Your task to perform on an android device: open chrome and create a bookmark for the current page Image 0: 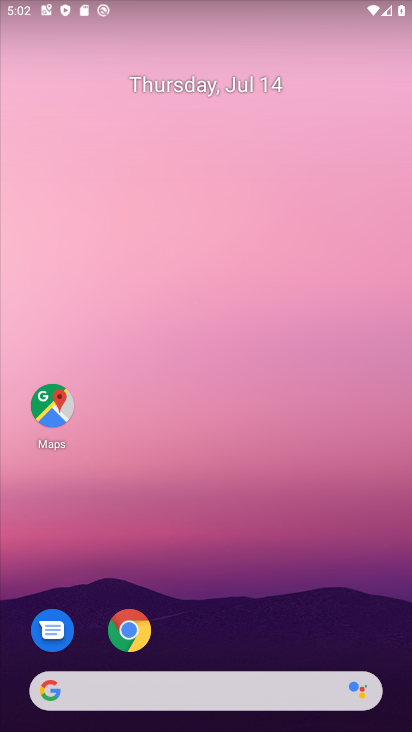
Step 0: drag from (336, 678) to (411, 71)
Your task to perform on an android device: open chrome and create a bookmark for the current page Image 1: 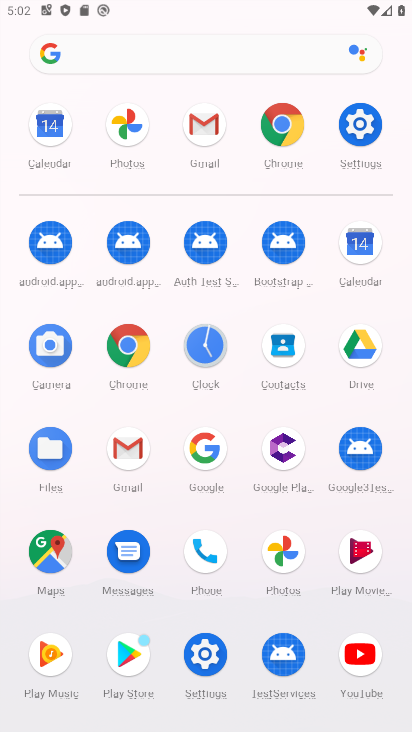
Step 1: click (119, 349)
Your task to perform on an android device: open chrome and create a bookmark for the current page Image 2: 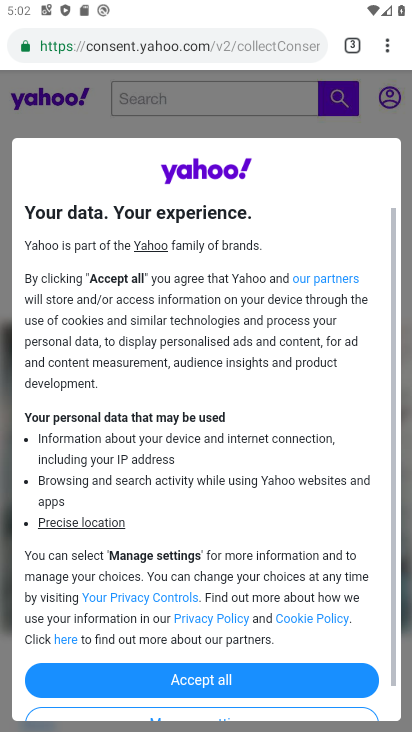
Step 2: task complete